Your task to perform on an android device: Set an alarm for 7pm Image 0: 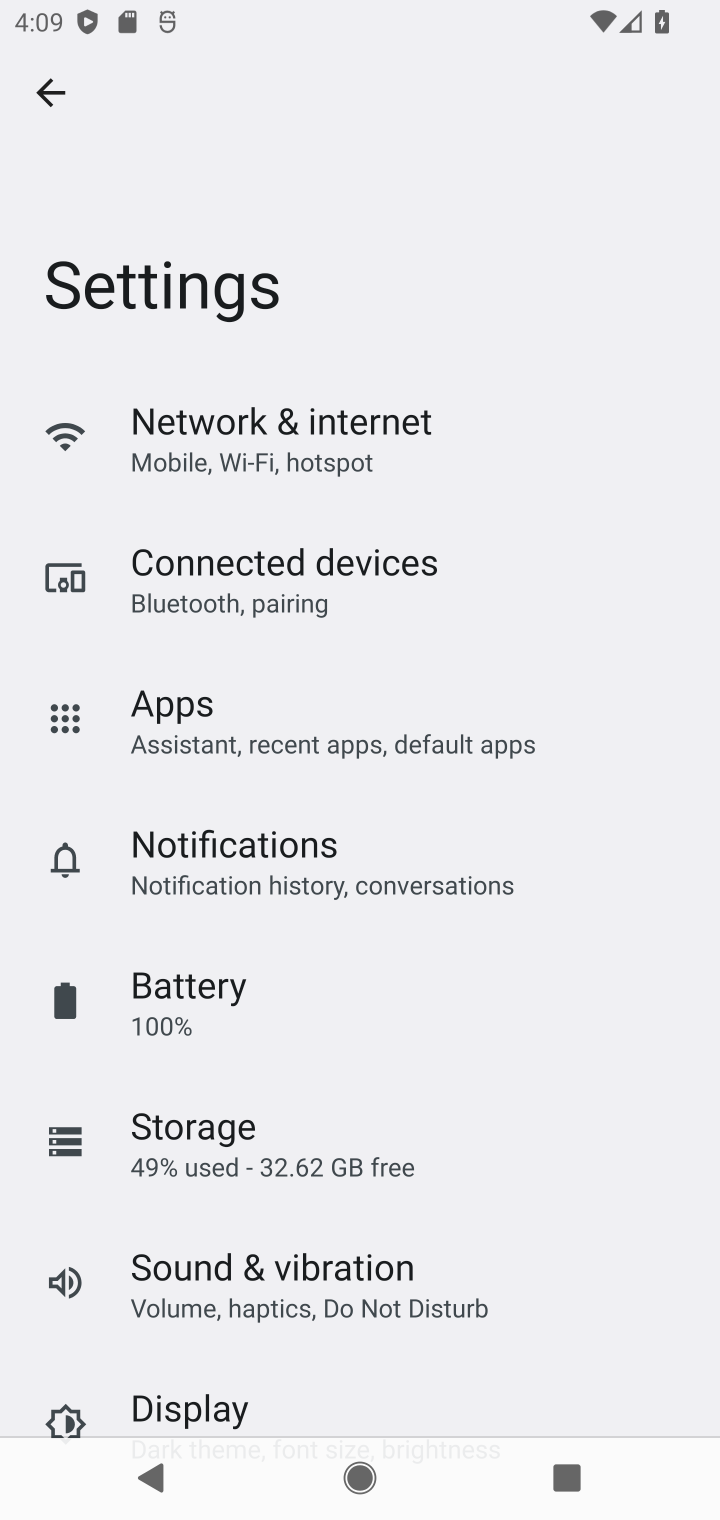
Step 0: press home button
Your task to perform on an android device: Set an alarm for 7pm Image 1: 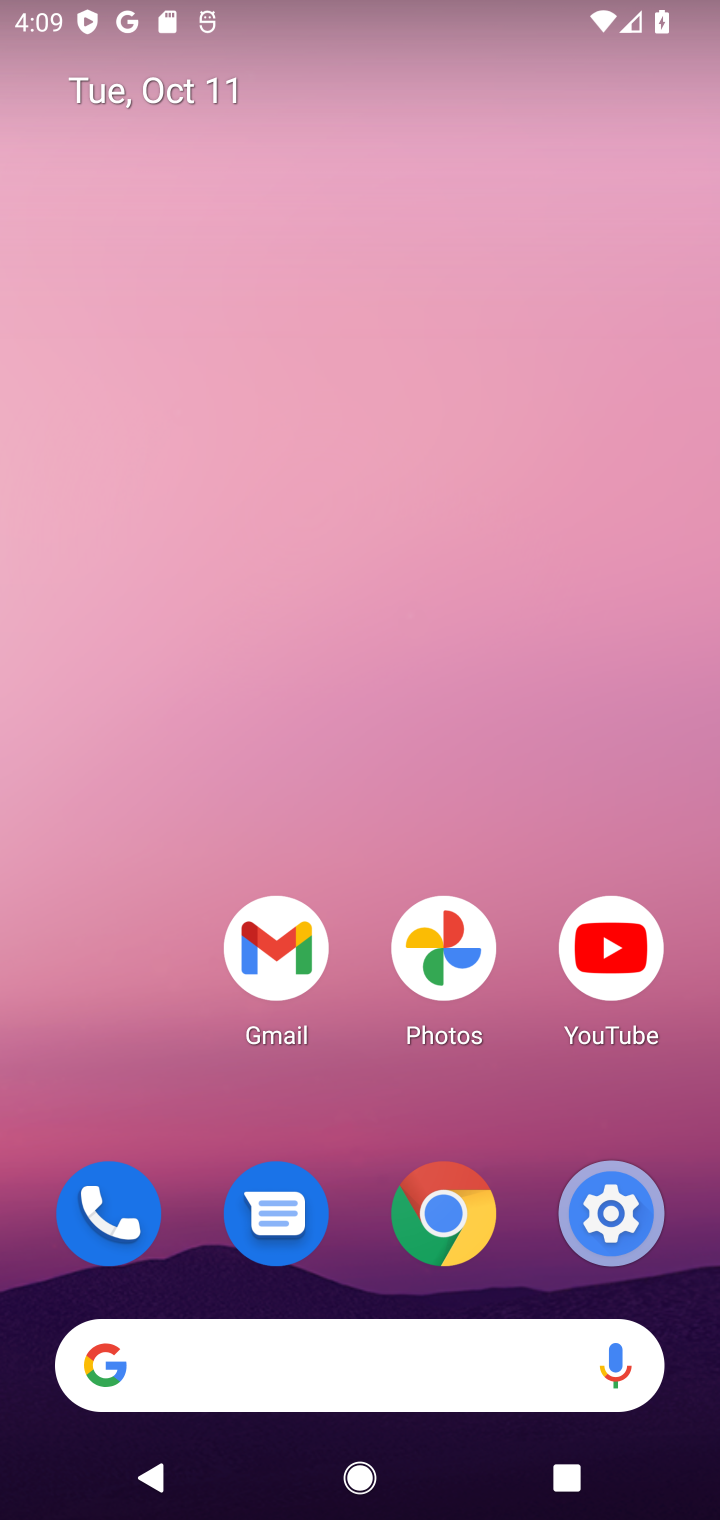
Step 1: drag from (526, 1023) to (492, 122)
Your task to perform on an android device: Set an alarm for 7pm Image 2: 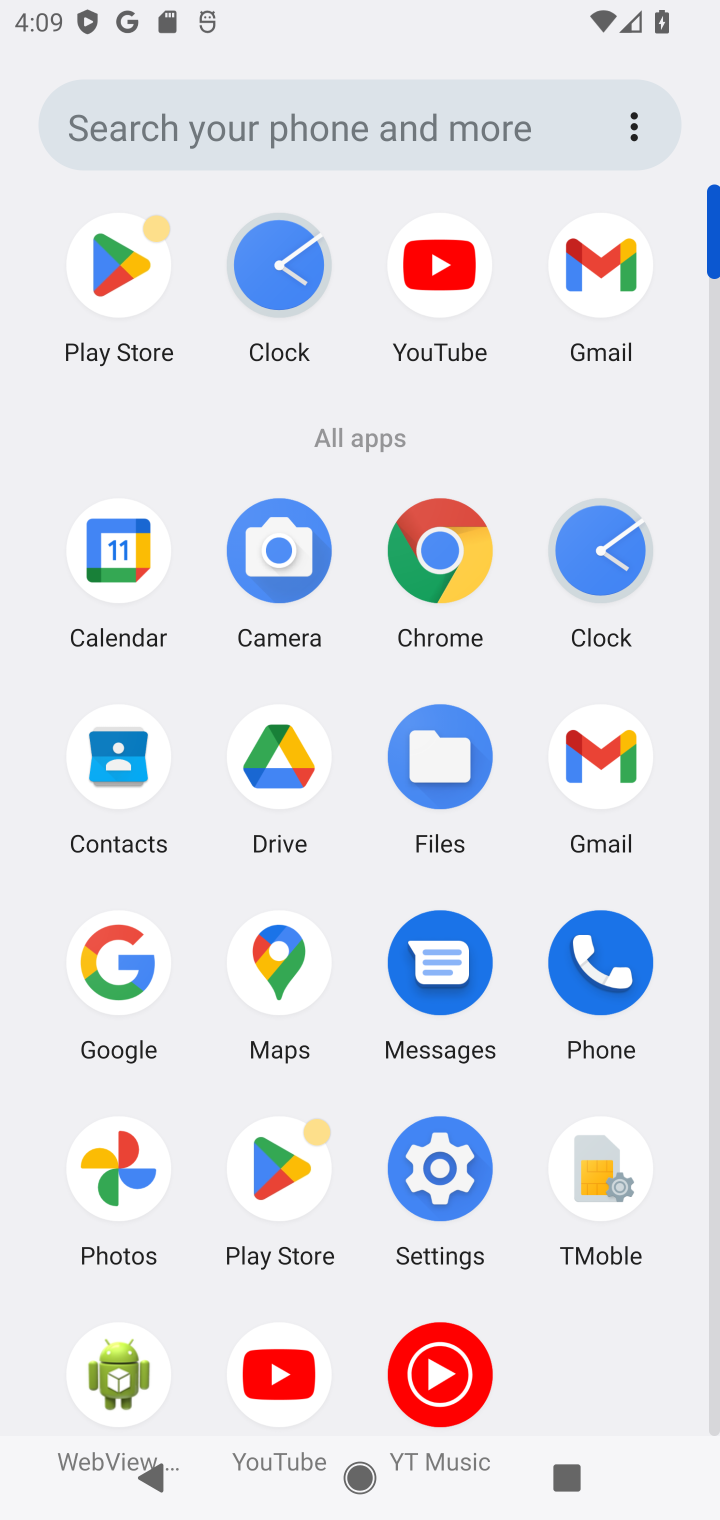
Step 2: click (578, 547)
Your task to perform on an android device: Set an alarm for 7pm Image 3: 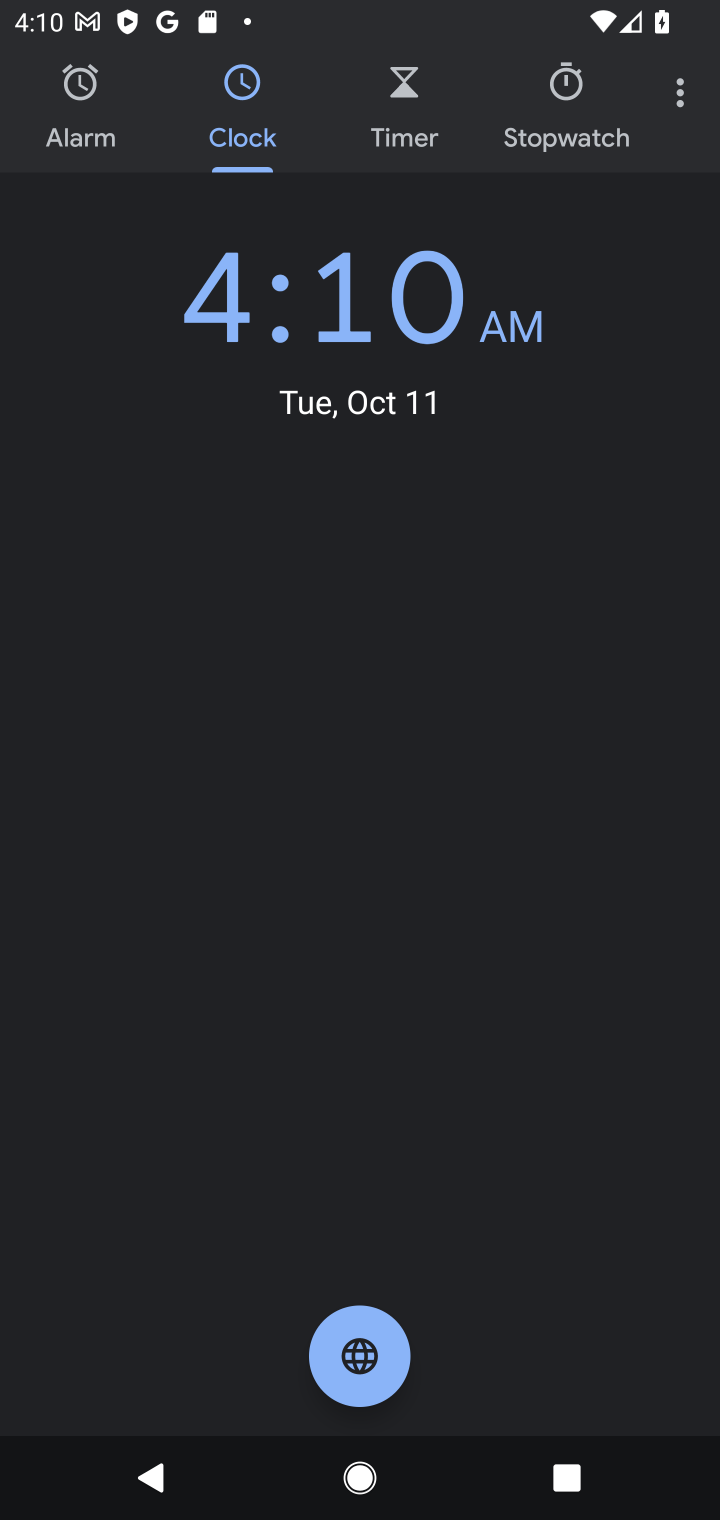
Step 3: click (86, 97)
Your task to perform on an android device: Set an alarm for 7pm Image 4: 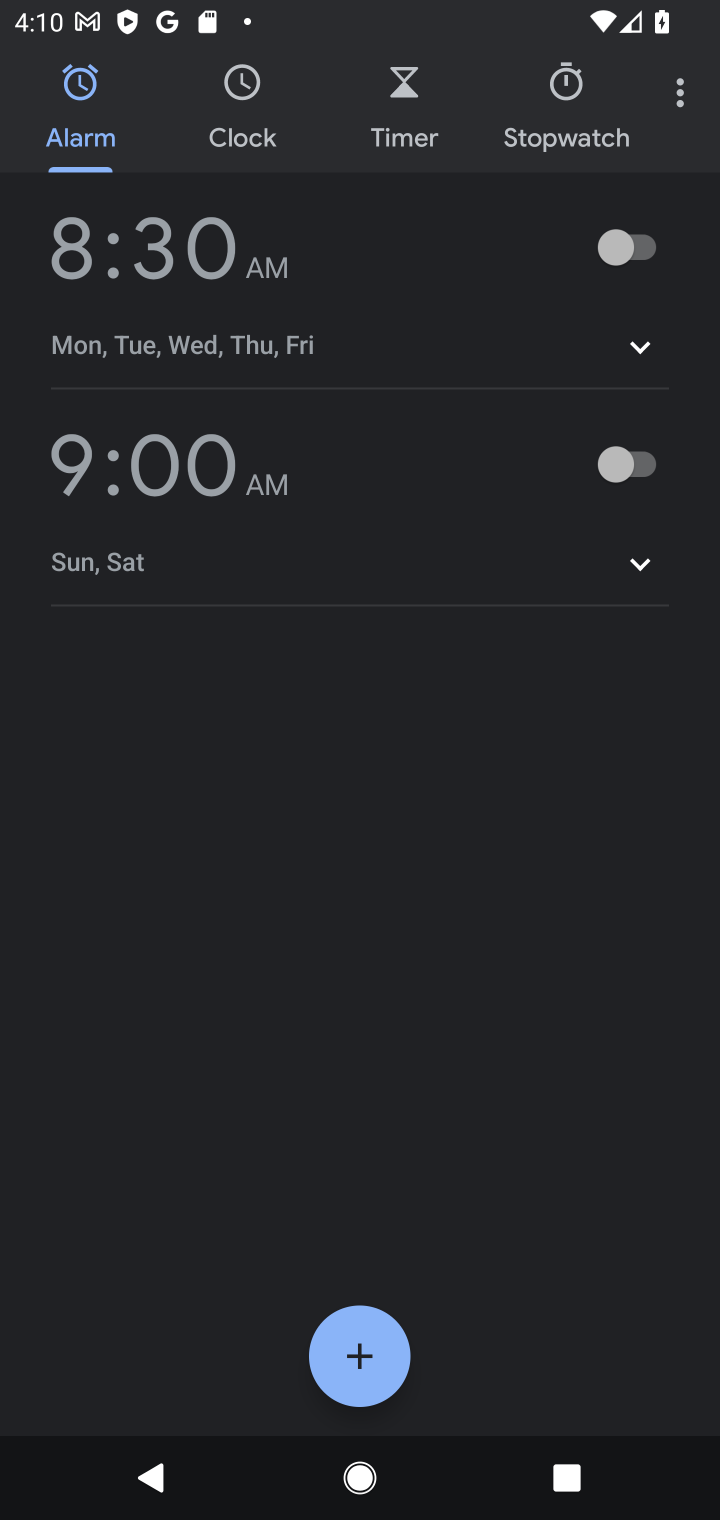
Step 4: click (339, 1367)
Your task to perform on an android device: Set an alarm for 7pm Image 5: 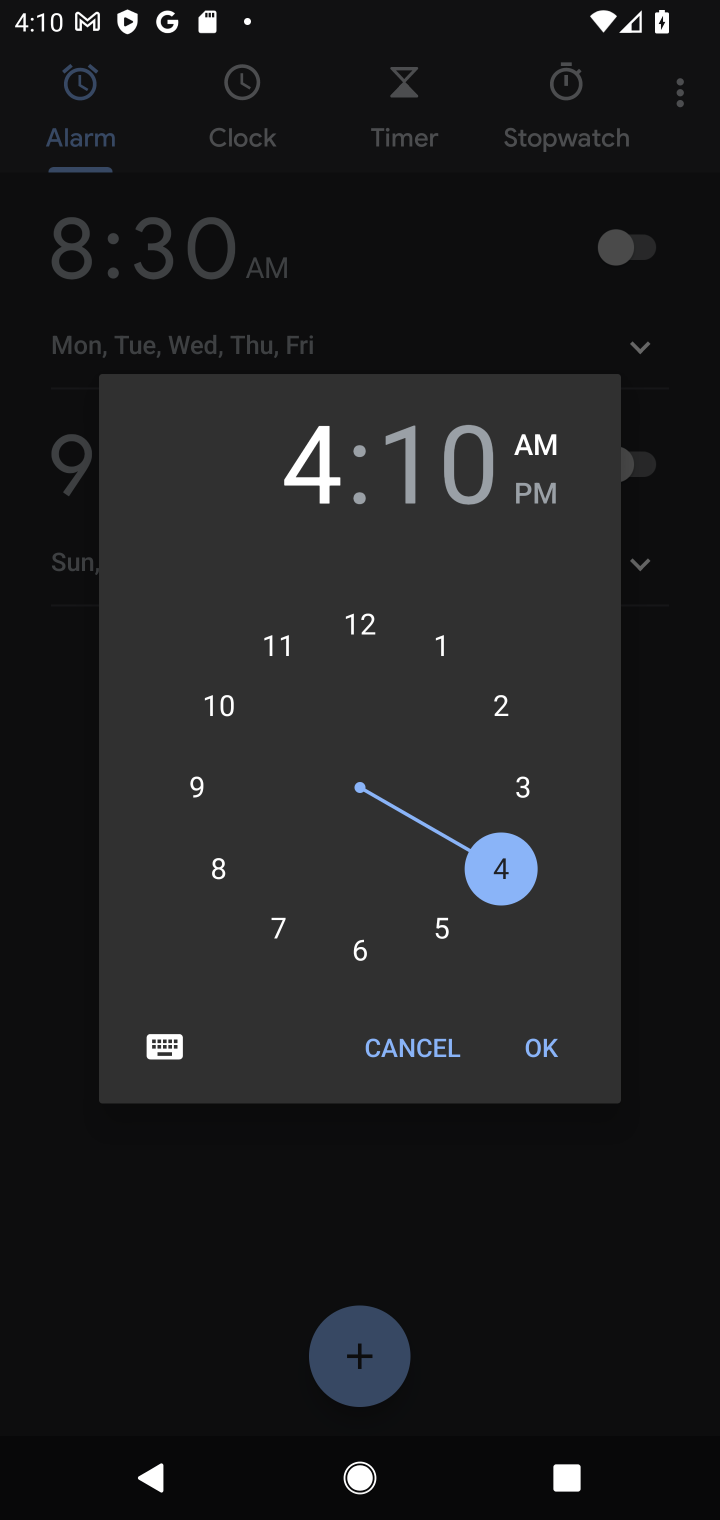
Step 5: click (266, 935)
Your task to perform on an android device: Set an alarm for 7pm Image 6: 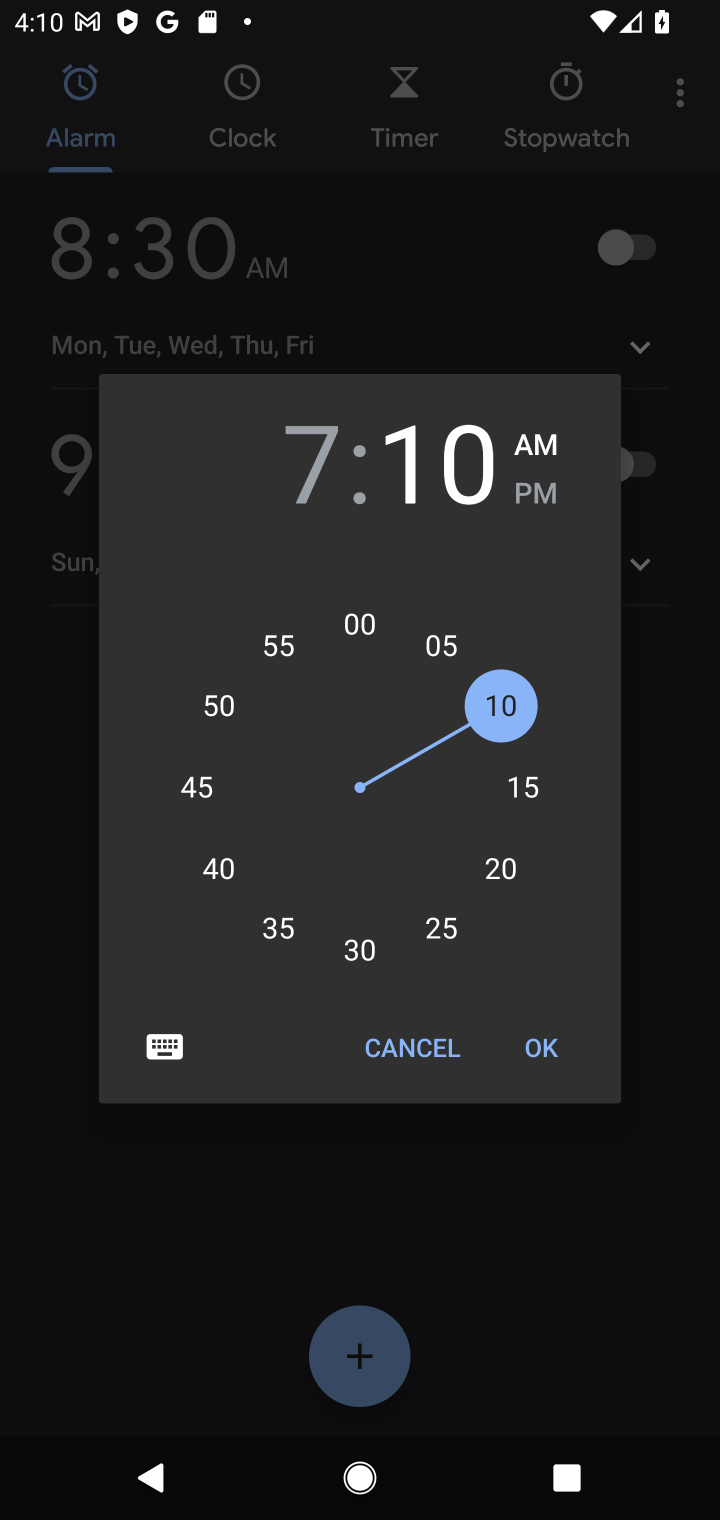
Step 6: click (354, 633)
Your task to perform on an android device: Set an alarm for 7pm Image 7: 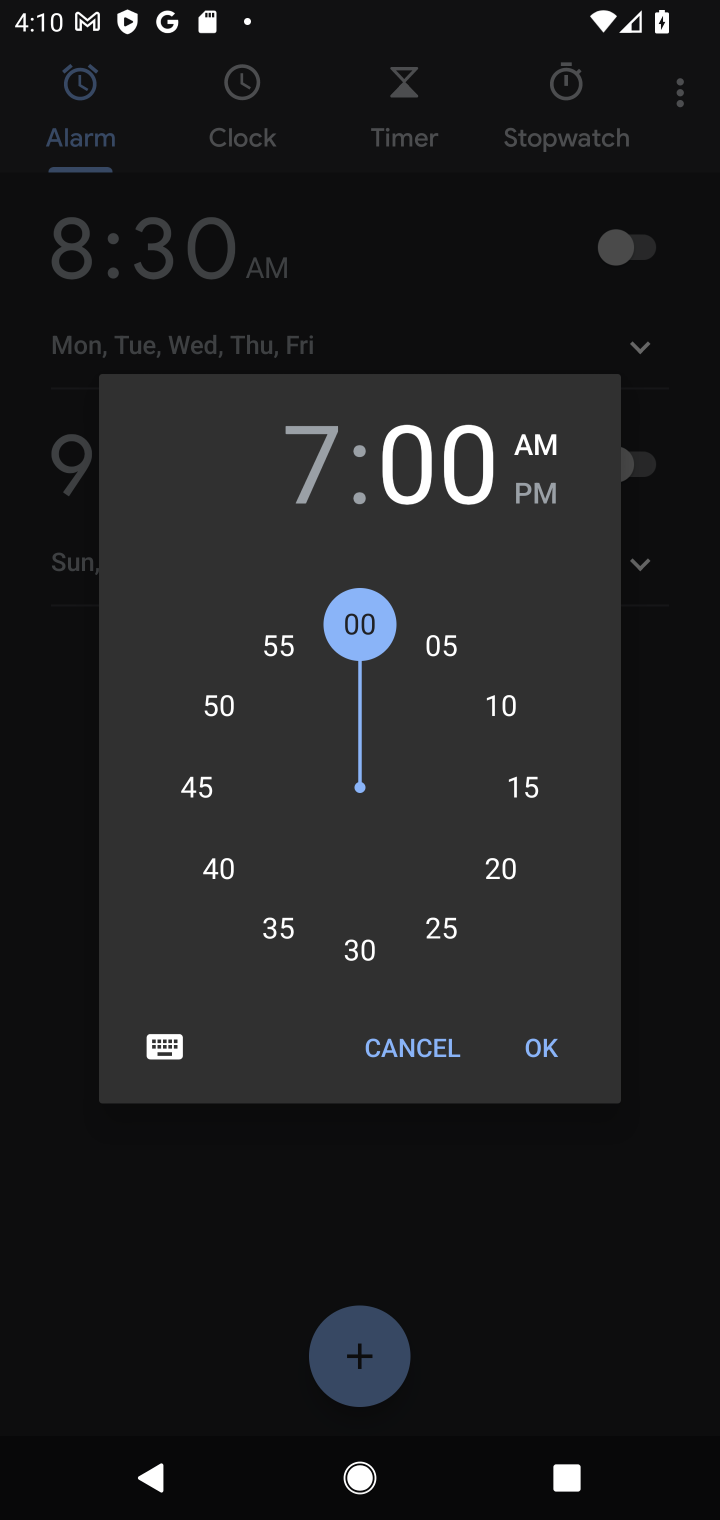
Step 7: click (522, 500)
Your task to perform on an android device: Set an alarm for 7pm Image 8: 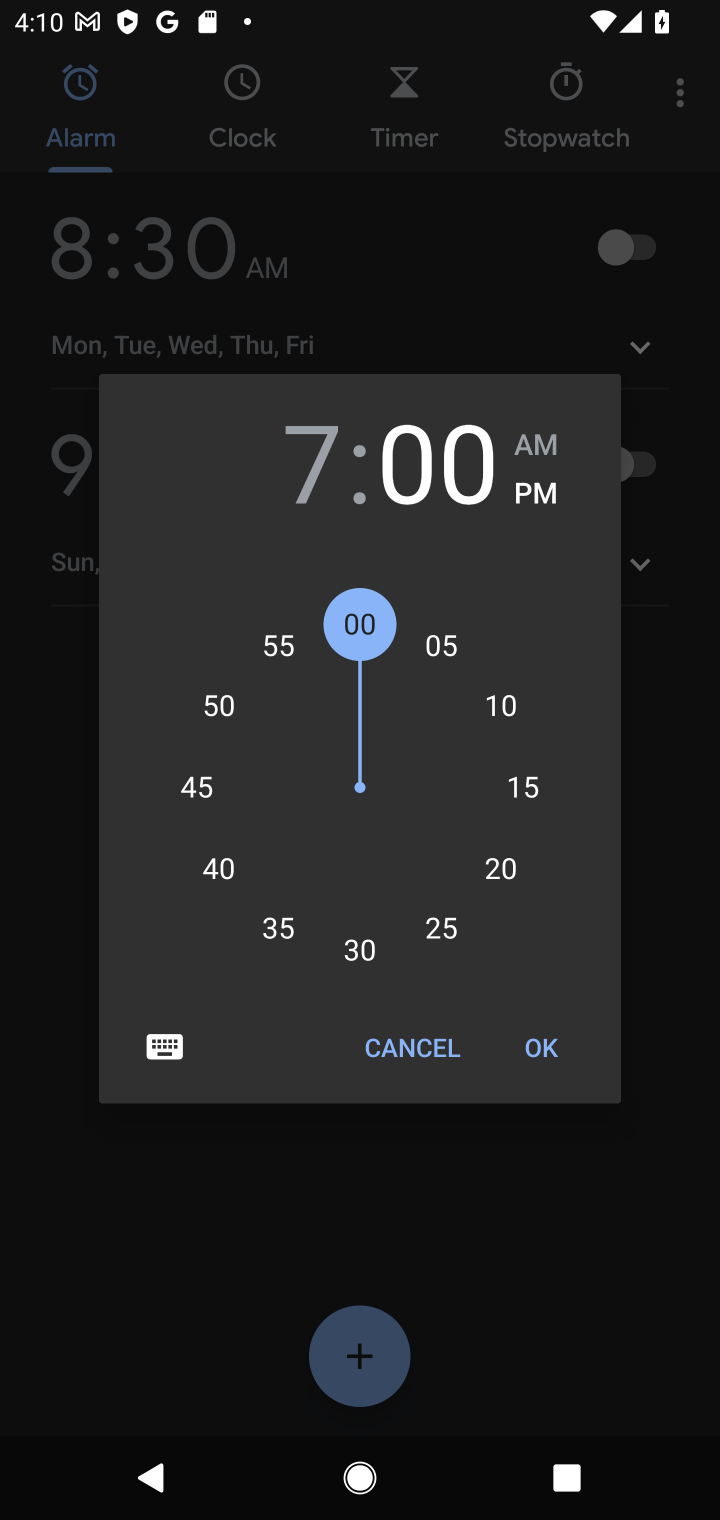
Step 8: click (551, 1059)
Your task to perform on an android device: Set an alarm for 7pm Image 9: 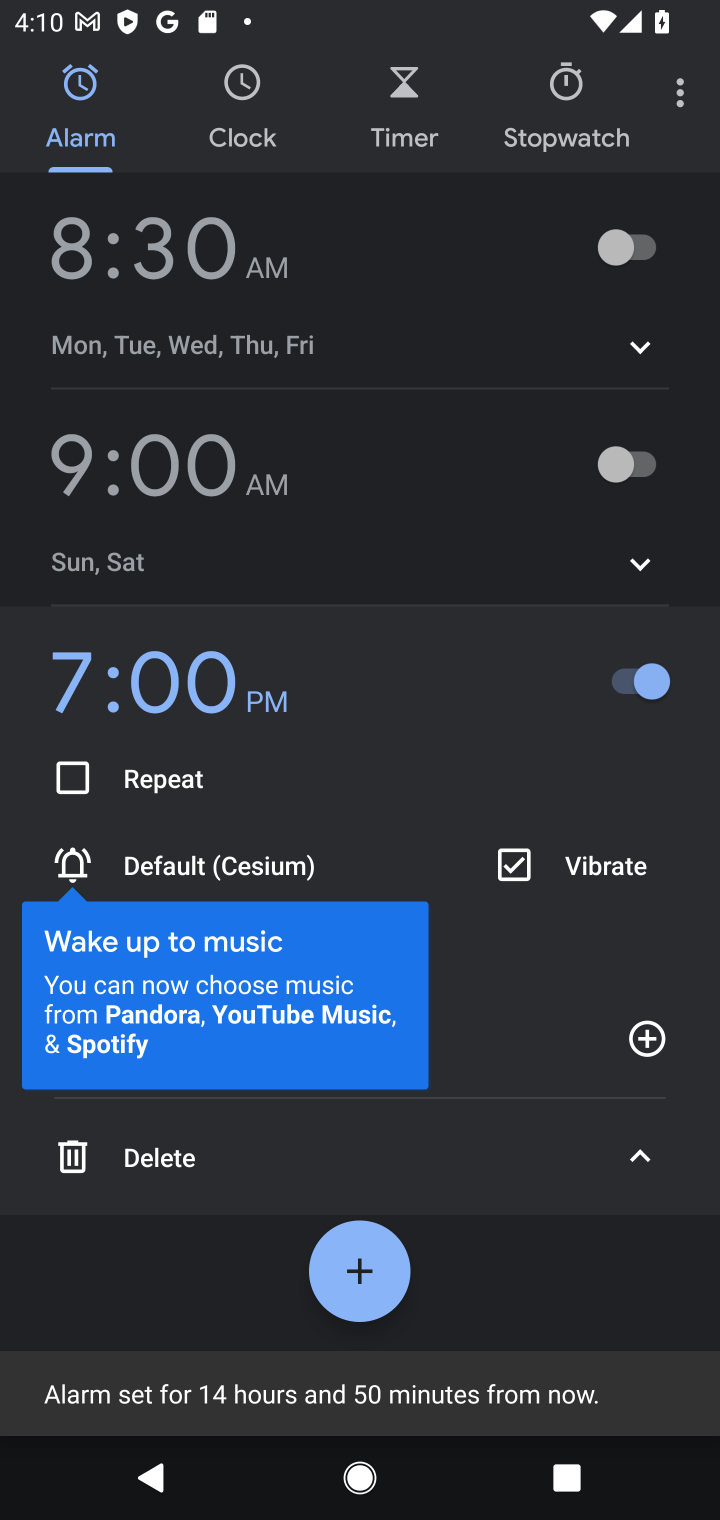
Step 9: task complete